Your task to perform on an android device: change the clock style Image 0: 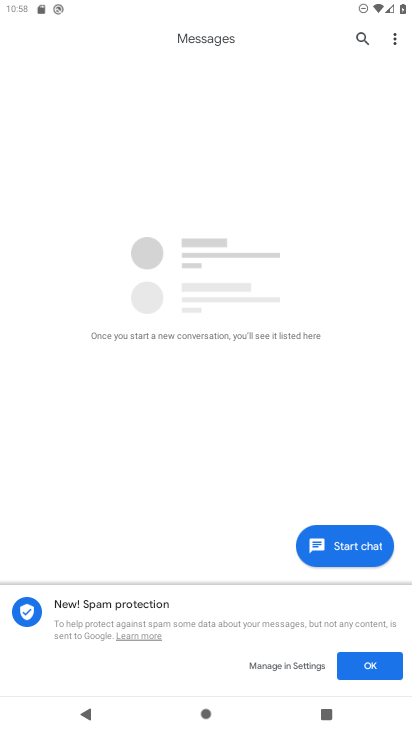
Step 0: press home button
Your task to perform on an android device: change the clock style Image 1: 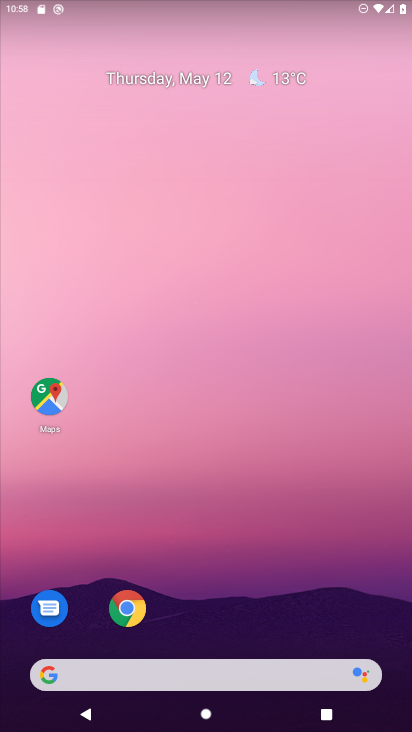
Step 1: drag from (220, 592) to (236, 93)
Your task to perform on an android device: change the clock style Image 2: 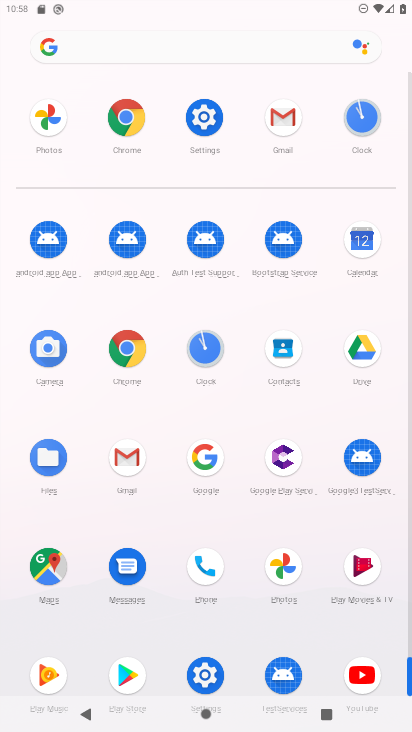
Step 2: click (367, 109)
Your task to perform on an android device: change the clock style Image 3: 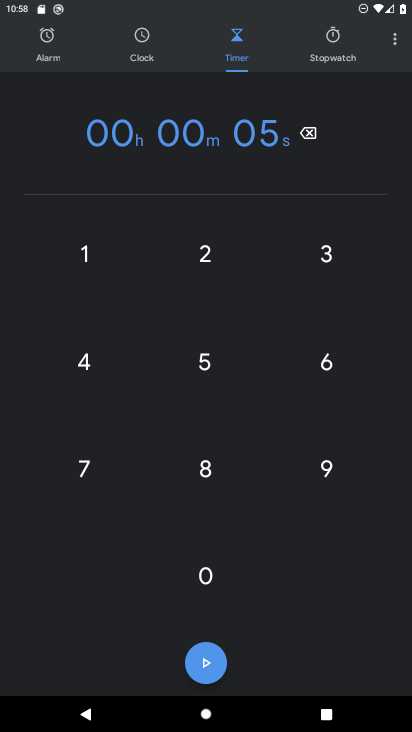
Step 3: click (388, 37)
Your task to perform on an android device: change the clock style Image 4: 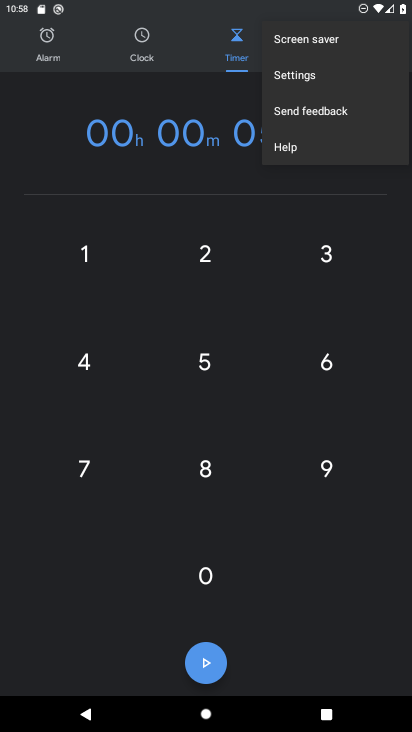
Step 4: click (304, 83)
Your task to perform on an android device: change the clock style Image 5: 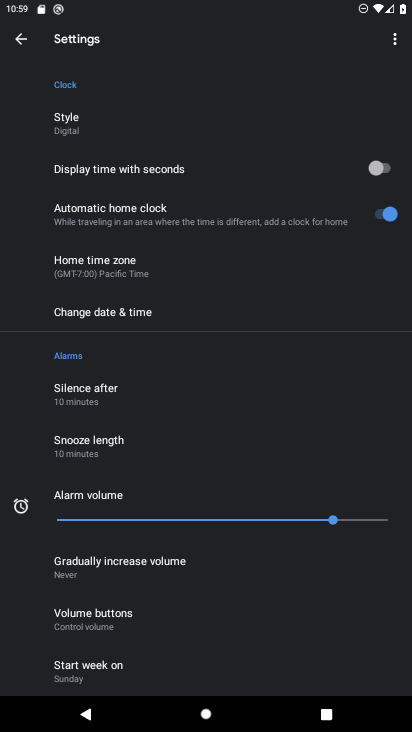
Step 5: task complete